Your task to perform on an android device: Open Google Maps and go to "Timeline" Image 0: 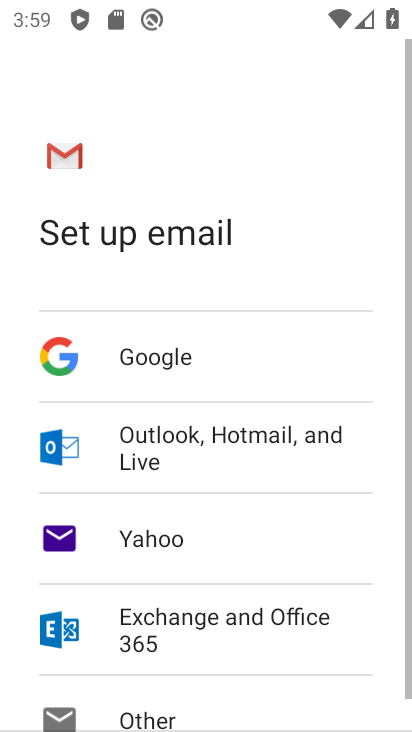
Step 0: press home button
Your task to perform on an android device: Open Google Maps and go to "Timeline" Image 1: 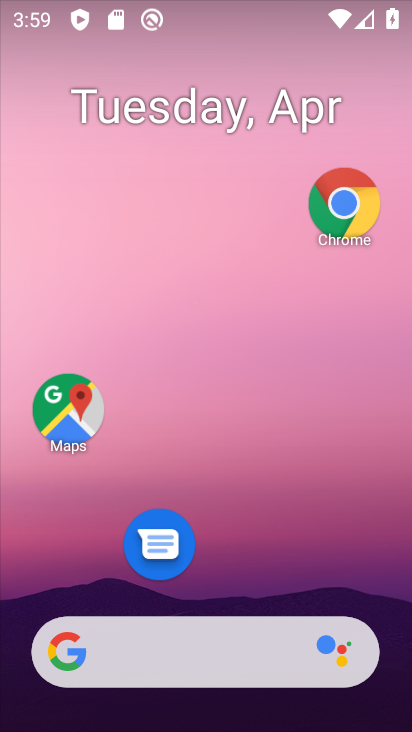
Step 1: click (81, 425)
Your task to perform on an android device: Open Google Maps and go to "Timeline" Image 2: 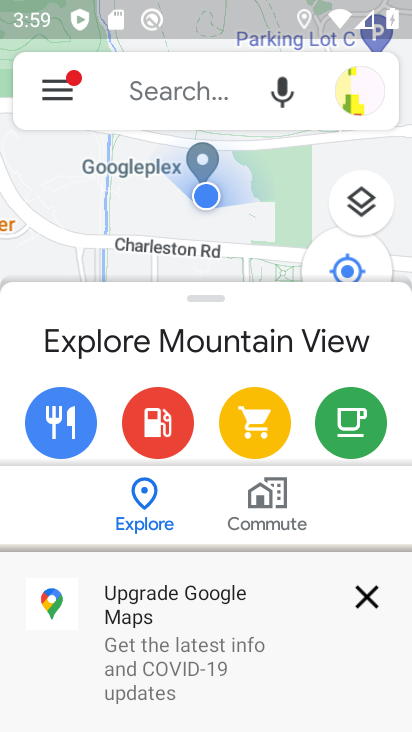
Step 2: click (365, 586)
Your task to perform on an android device: Open Google Maps and go to "Timeline" Image 3: 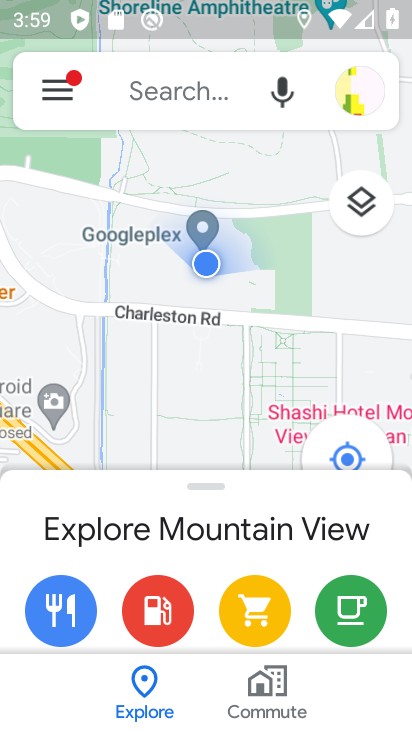
Step 3: click (60, 82)
Your task to perform on an android device: Open Google Maps and go to "Timeline" Image 4: 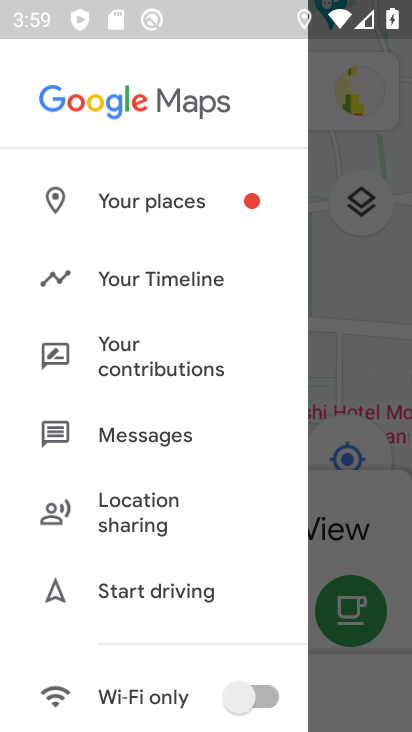
Step 4: click (161, 274)
Your task to perform on an android device: Open Google Maps and go to "Timeline" Image 5: 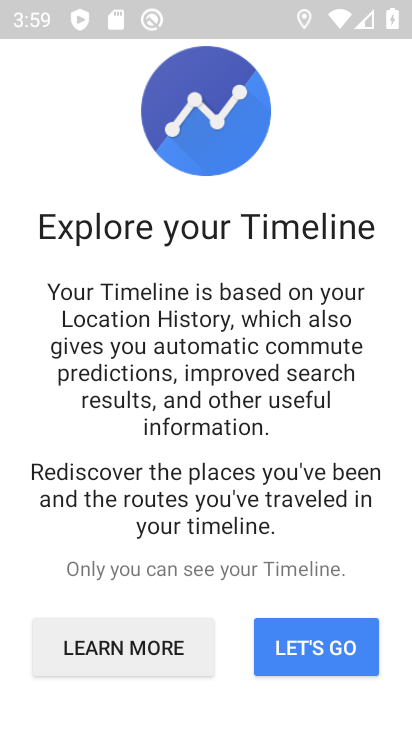
Step 5: drag from (193, 552) to (248, 121)
Your task to perform on an android device: Open Google Maps and go to "Timeline" Image 6: 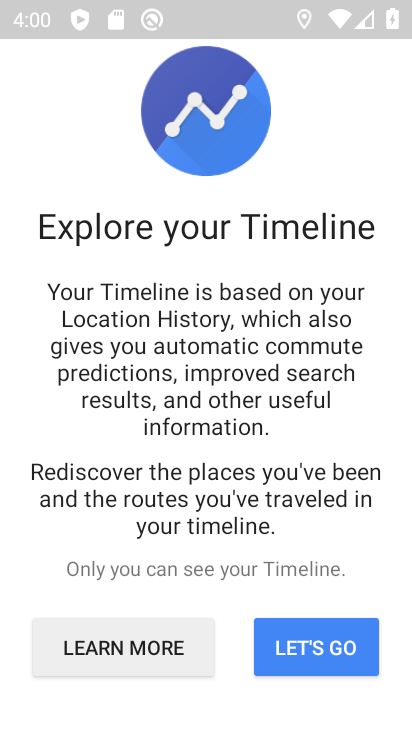
Step 6: drag from (248, 617) to (318, 204)
Your task to perform on an android device: Open Google Maps and go to "Timeline" Image 7: 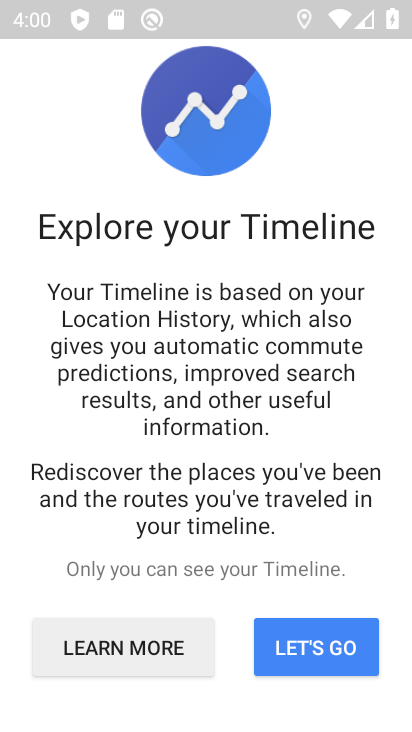
Step 7: click (295, 642)
Your task to perform on an android device: Open Google Maps and go to "Timeline" Image 8: 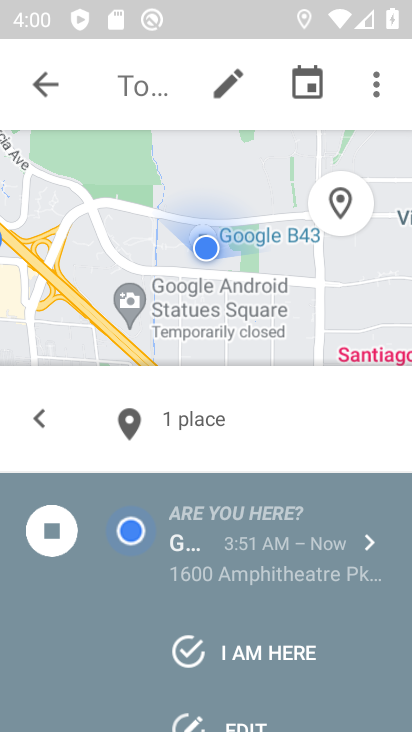
Step 8: task complete